Your task to perform on an android device: turn notification dots off Image 0: 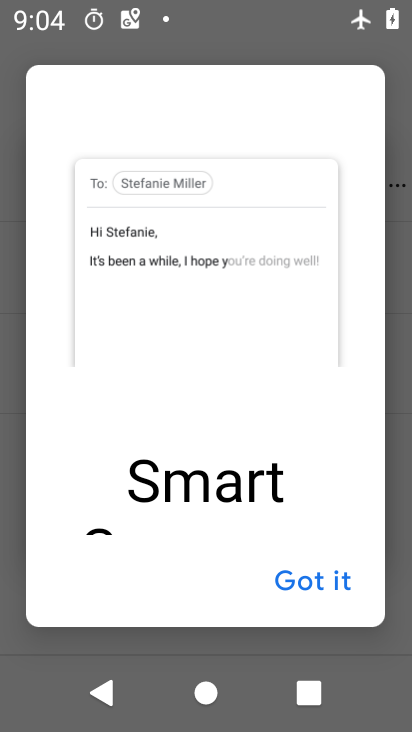
Step 0: press home button
Your task to perform on an android device: turn notification dots off Image 1: 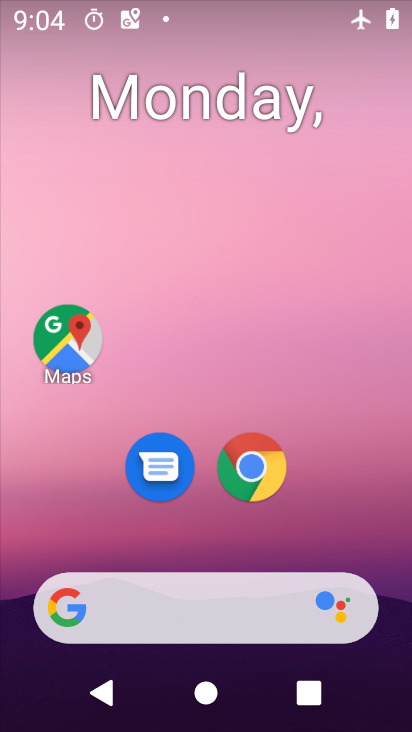
Step 1: drag from (201, 518) to (267, 21)
Your task to perform on an android device: turn notification dots off Image 2: 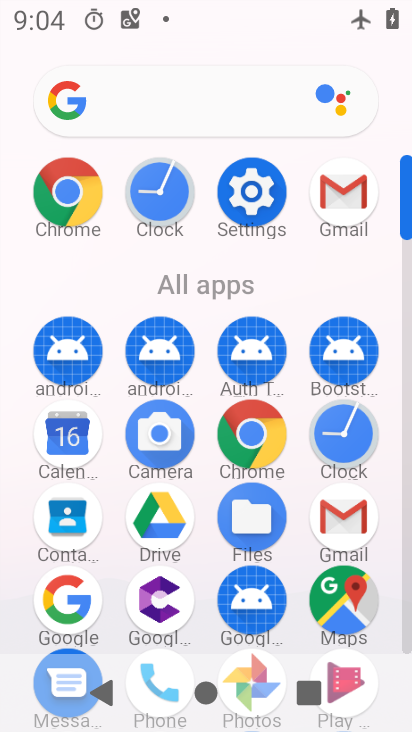
Step 2: click (260, 192)
Your task to perform on an android device: turn notification dots off Image 3: 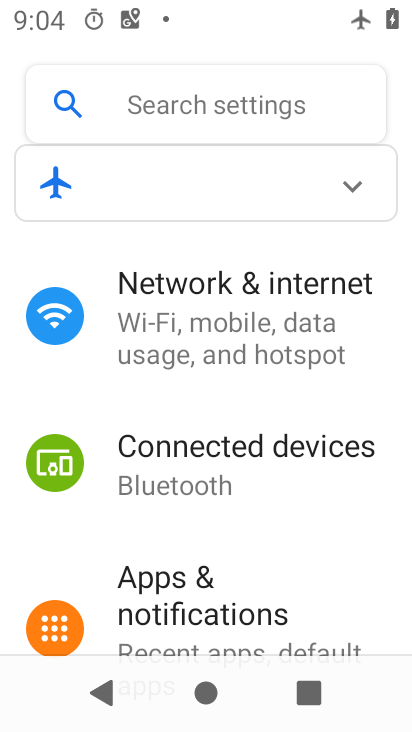
Step 3: click (236, 605)
Your task to perform on an android device: turn notification dots off Image 4: 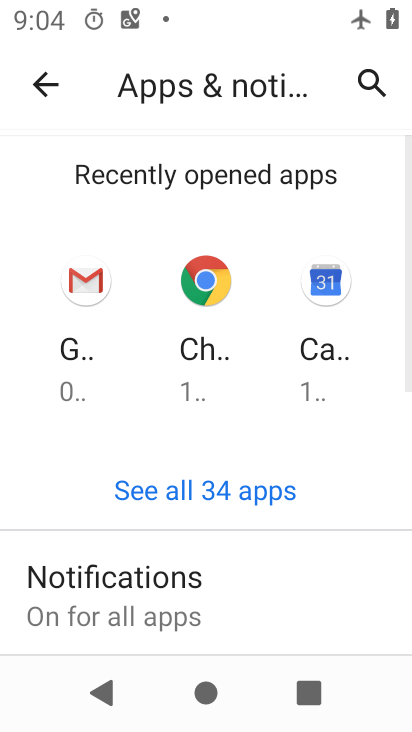
Step 4: click (236, 605)
Your task to perform on an android device: turn notification dots off Image 5: 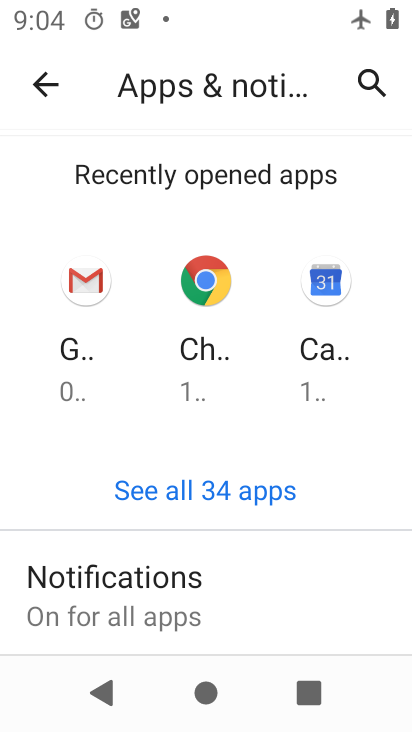
Step 5: click (238, 591)
Your task to perform on an android device: turn notification dots off Image 6: 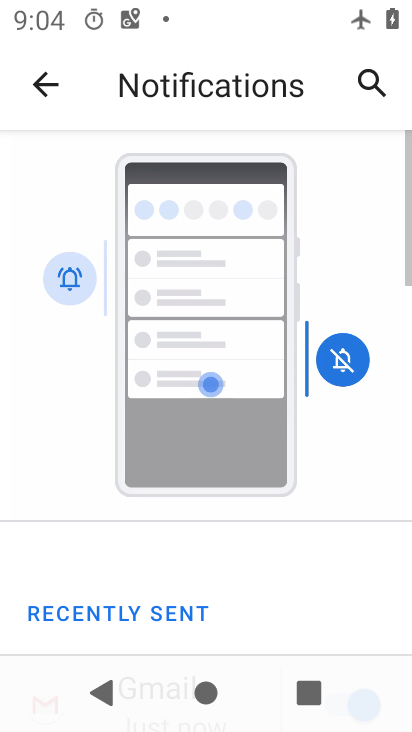
Step 6: drag from (239, 556) to (318, 21)
Your task to perform on an android device: turn notification dots off Image 7: 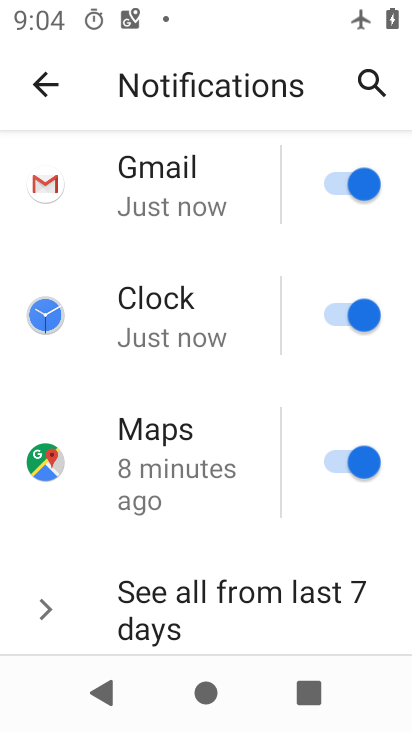
Step 7: drag from (219, 610) to (277, 95)
Your task to perform on an android device: turn notification dots off Image 8: 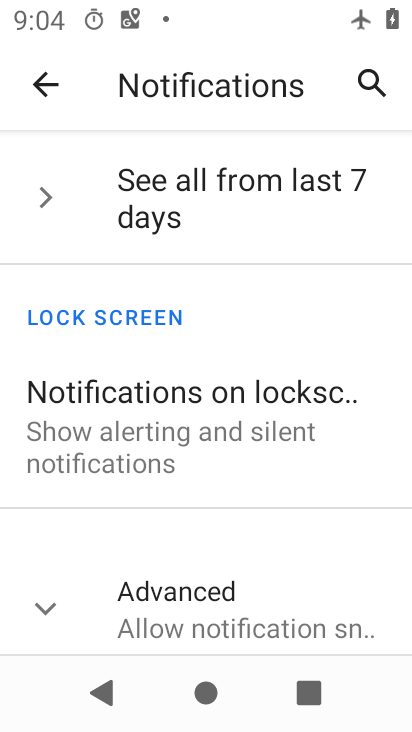
Step 8: click (180, 629)
Your task to perform on an android device: turn notification dots off Image 9: 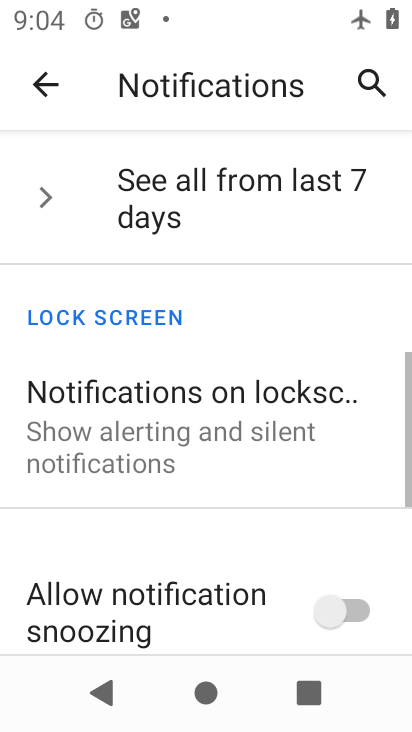
Step 9: drag from (229, 526) to (280, 62)
Your task to perform on an android device: turn notification dots off Image 10: 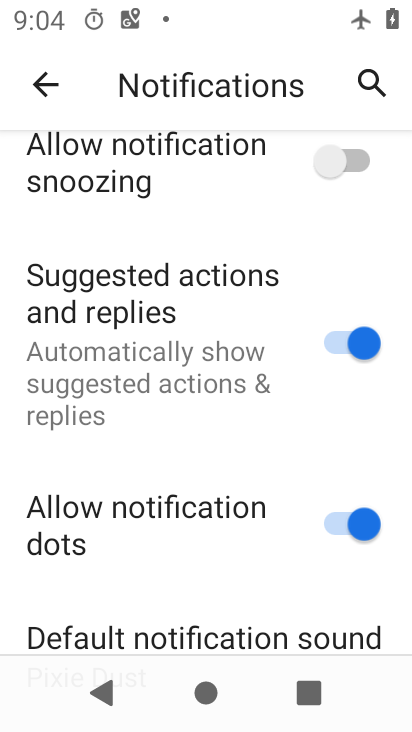
Step 10: click (362, 534)
Your task to perform on an android device: turn notification dots off Image 11: 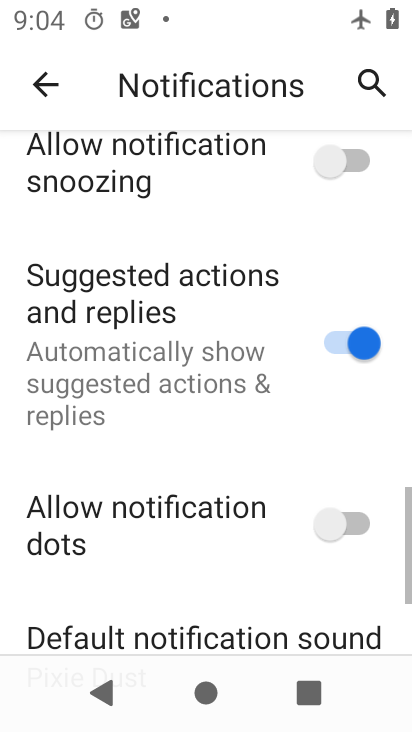
Step 11: task complete